Your task to perform on an android device: toggle wifi Image 0: 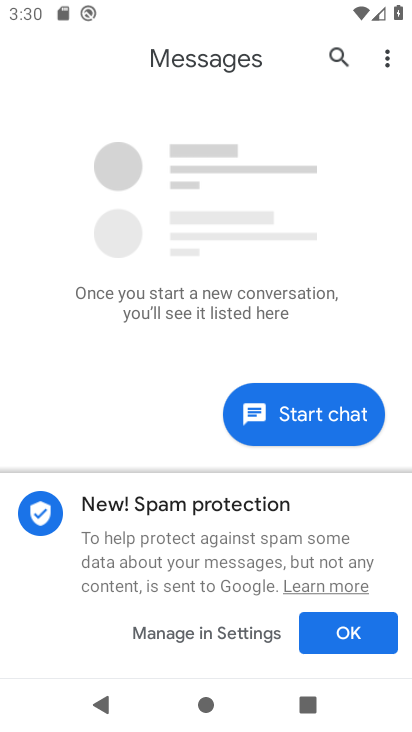
Step 0: press home button
Your task to perform on an android device: toggle wifi Image 1: 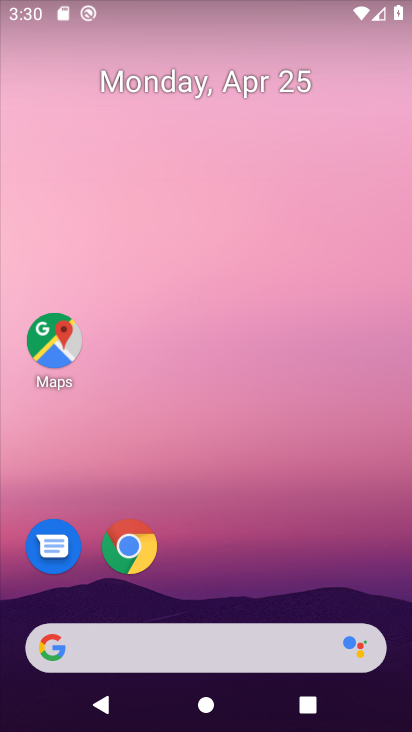
Step 1: drag from (234, 506) to (340, 19)
Your task to perform on an android device: toggle wifi Image 2: 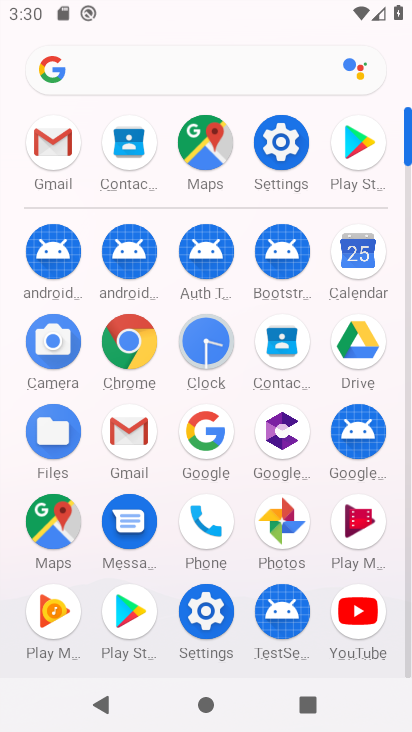
Step 2: click (278, 143)
Your task to perform on an android device: toggle wifi Image 3: 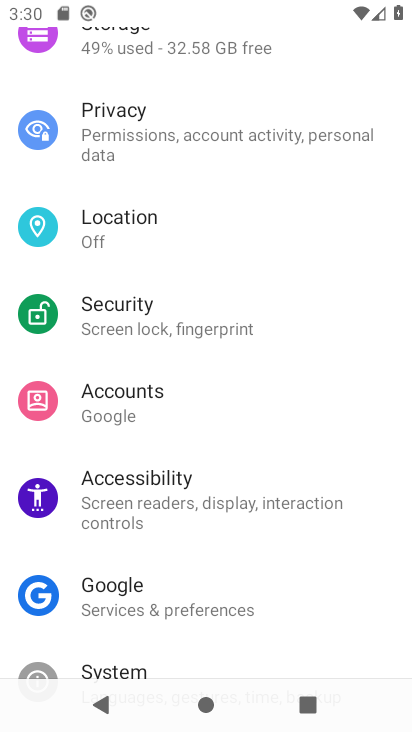
Step 3: drag from (242, 164) to (269, 532)
Your task to perform on an android device: toggle wifi Image 4: 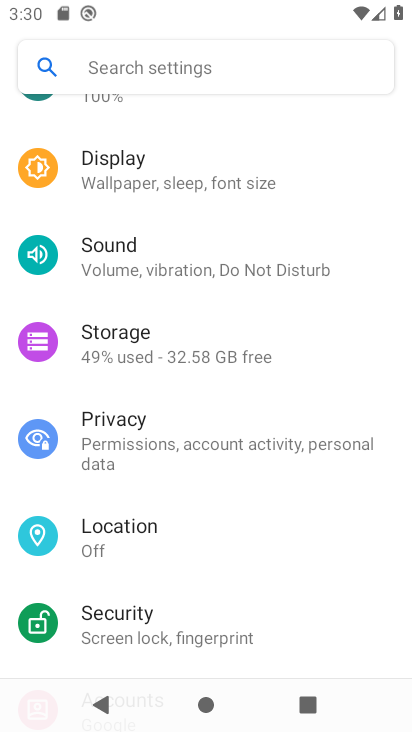
Step 4: drag from (322, 281) to (351, 615)
Your task to perform on an android device: toggle wifi Image 5: 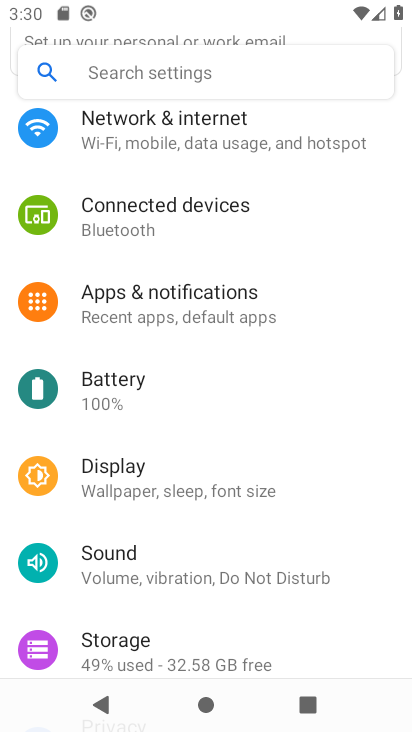
Step 5: drag from (282, 321) to (279, 596)
Your task to perform on an android device: toggle wifi Image 6: 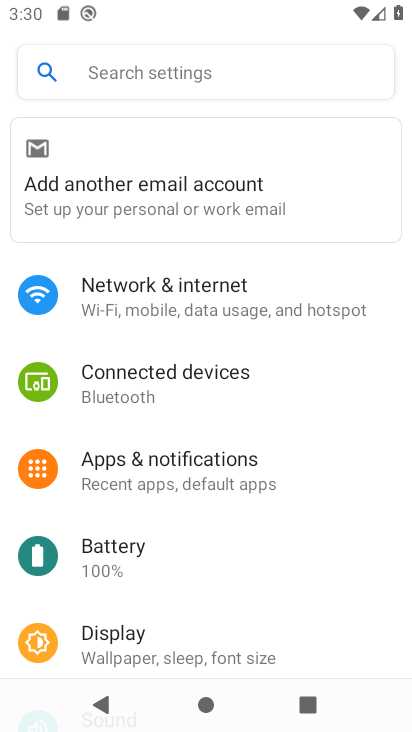
Step 6: click (267, 303)
Your task to perform on an android device: toggle wifi Image 7: 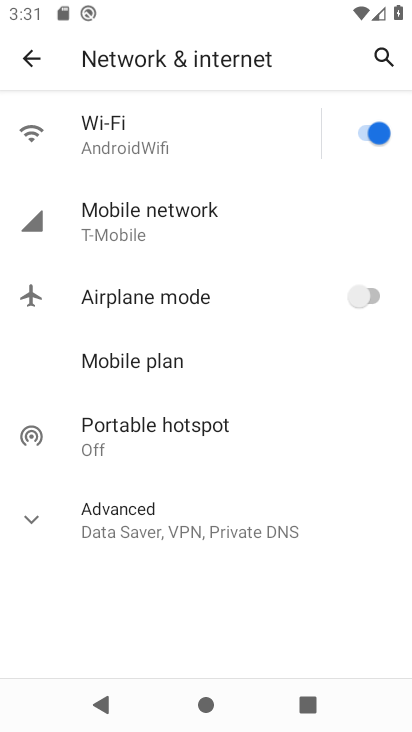
Step 7: click (360, 147)
Your task to perform on an android device: toggle wifi Image 8: 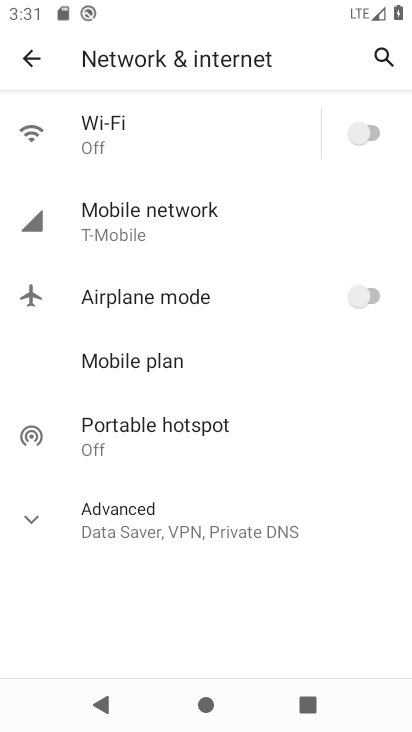
Step 8: task complete